Your task to perform on an android device: open app "ColorNote Notepad Notes" (install if not already installed) and go to login screen Image 0: 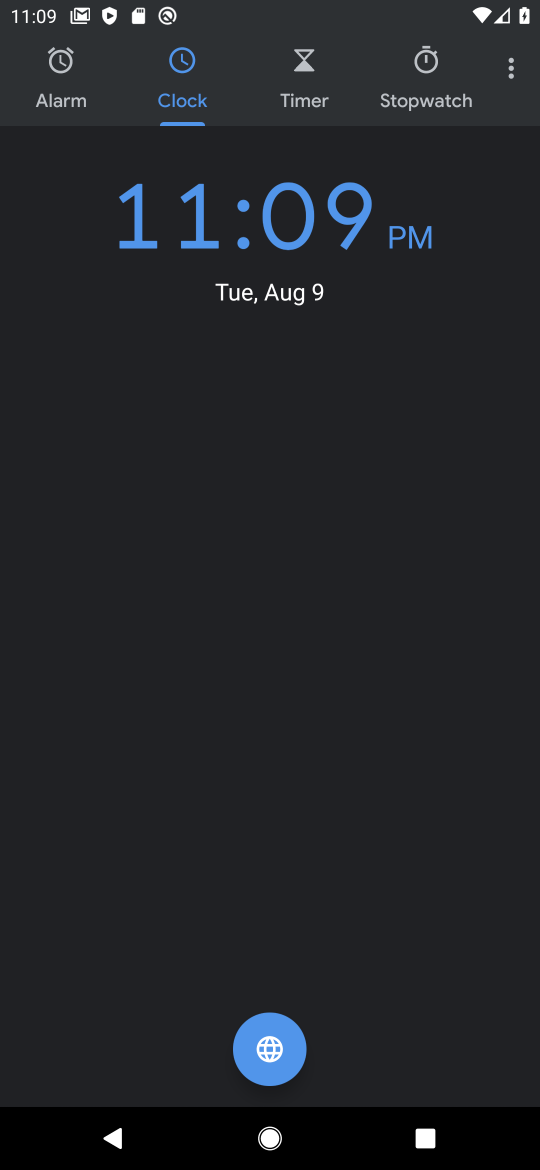
Step 0: press back button
Your task to perform on an android device: open app "ColorNote Notepad Notes" (install if not already installed) and go to login screen Image 1: 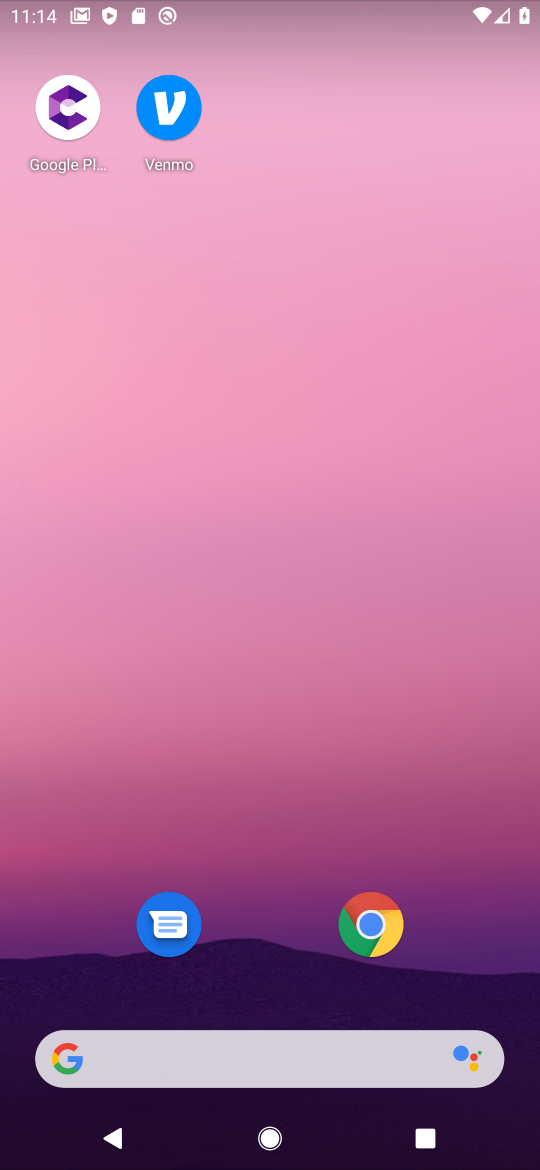
Step 1: drag from (291, 762) to (306, 76)
Your task to perform on an android device: open app "ColorNote Notepad Notes" (install if not already installed) and go to login screen Image 2: 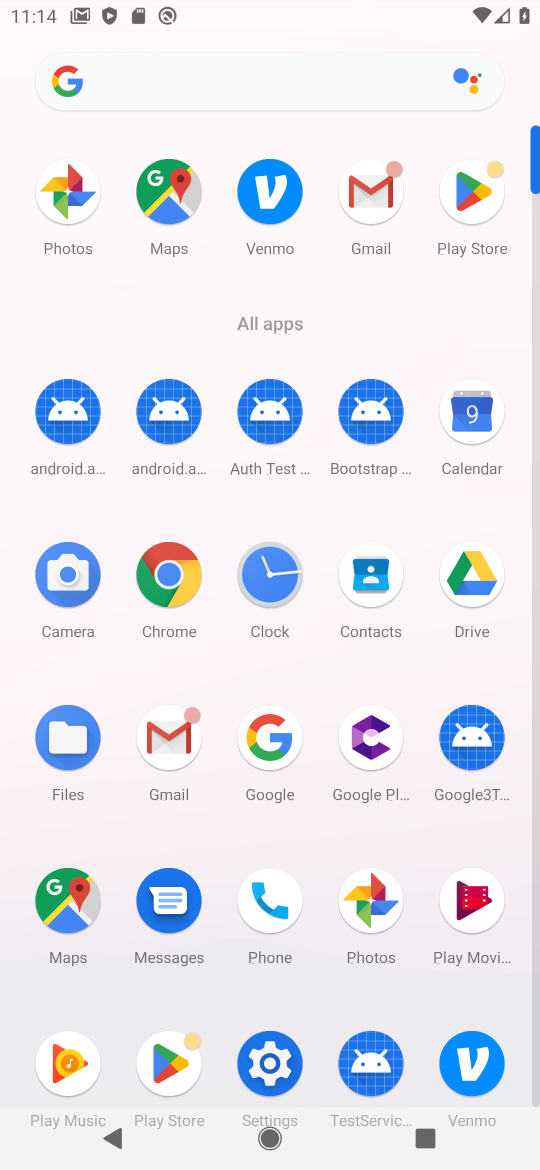
Step 2: click (482, 204)
Your task to perform on an android device: open app "ColorNote Notepad Notes" (install if not already installed) and go to login screen Image 3: 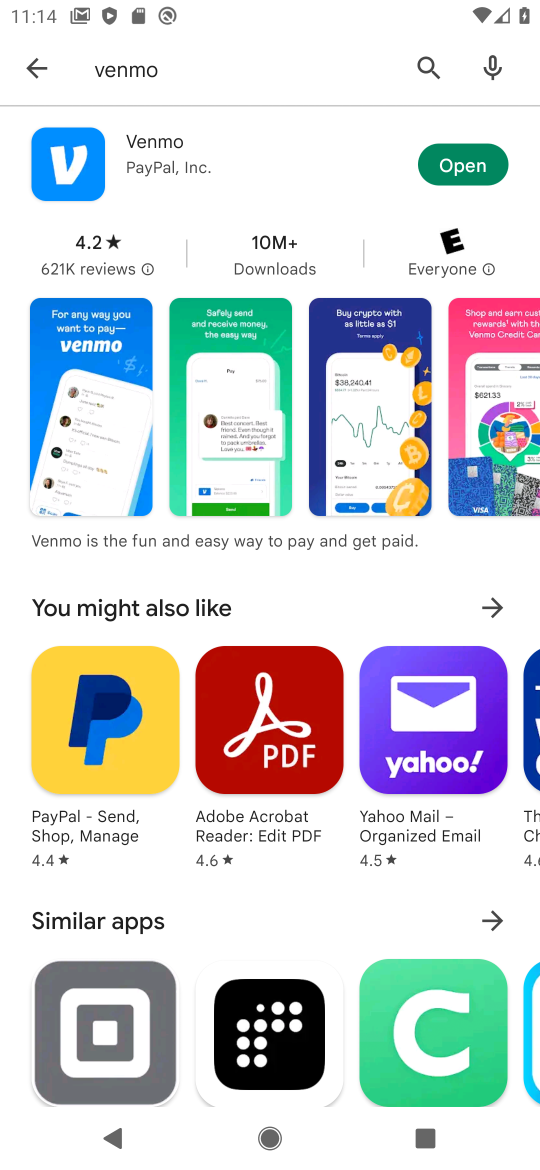
Step 3: click (405, 80)
Your task to perform on an android device: open app "ColorNote Notepad Notes" (install if not already installed) and go to login screen Image 4: 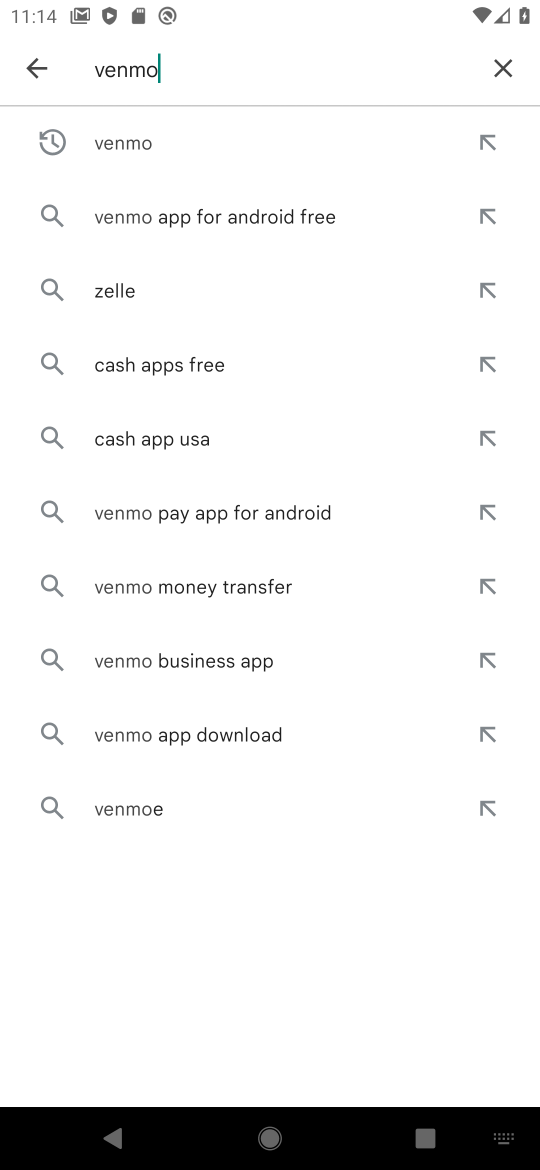
Step 4: click (513, 71)
Your task to perform on an android device: open app "ColorNote Notepad Notes" (install if not already installed) and go to login screen Image 5: 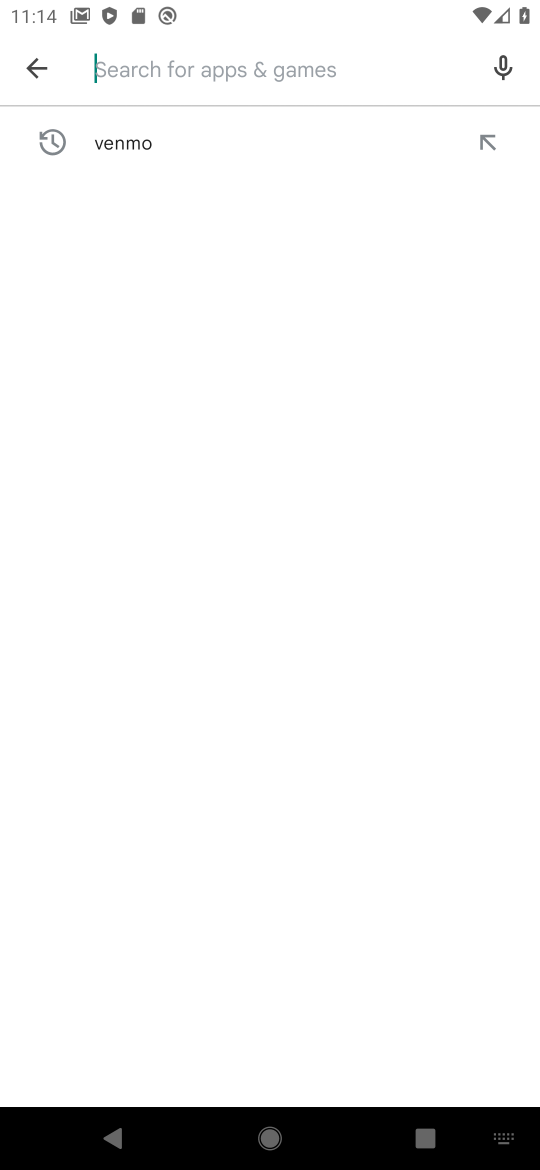
Step 5: click (199, 74)
Your task to perform on an android device: open app "ColorNote Notepad Notes" (install if not already installed) and go to login screen Image 6: 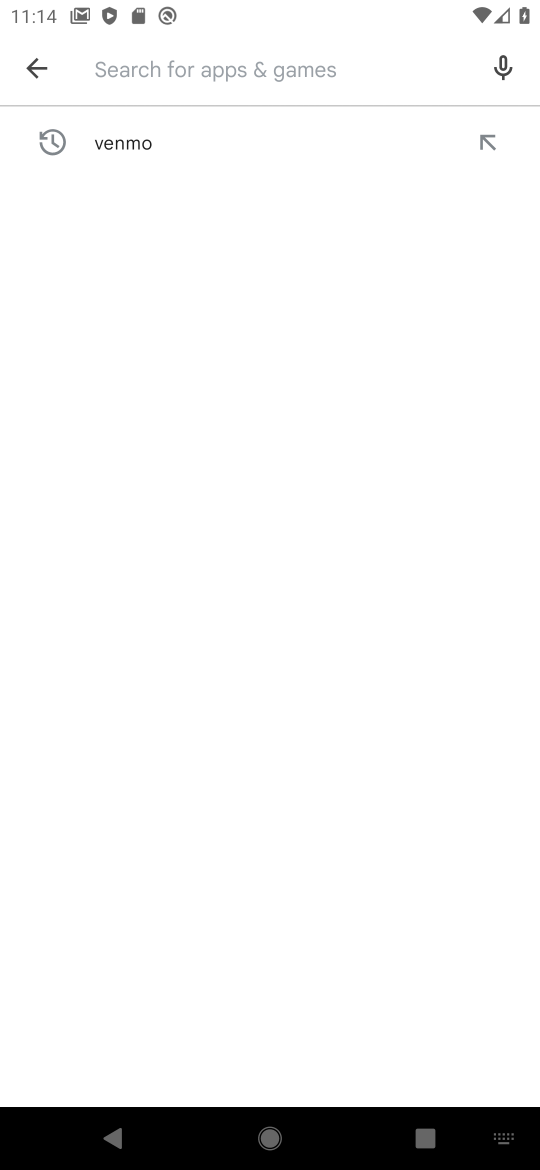
Step 6: type "colornote"
Your task to perform on an android device: open app "ColorNote Notepad Notes" (install if not already installed) and go to login screen Image 7: 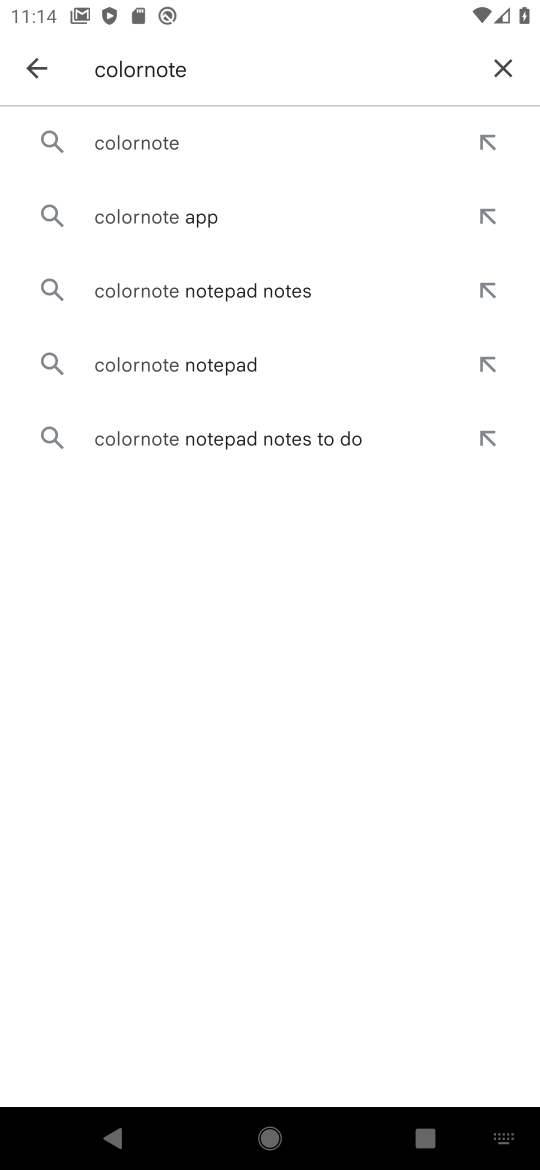
Step 7: click (199, 142)
Your task to perform on an android device: open app "ColorNote Notepad Notes" (install if not already installed) and go to login screen Image 8: 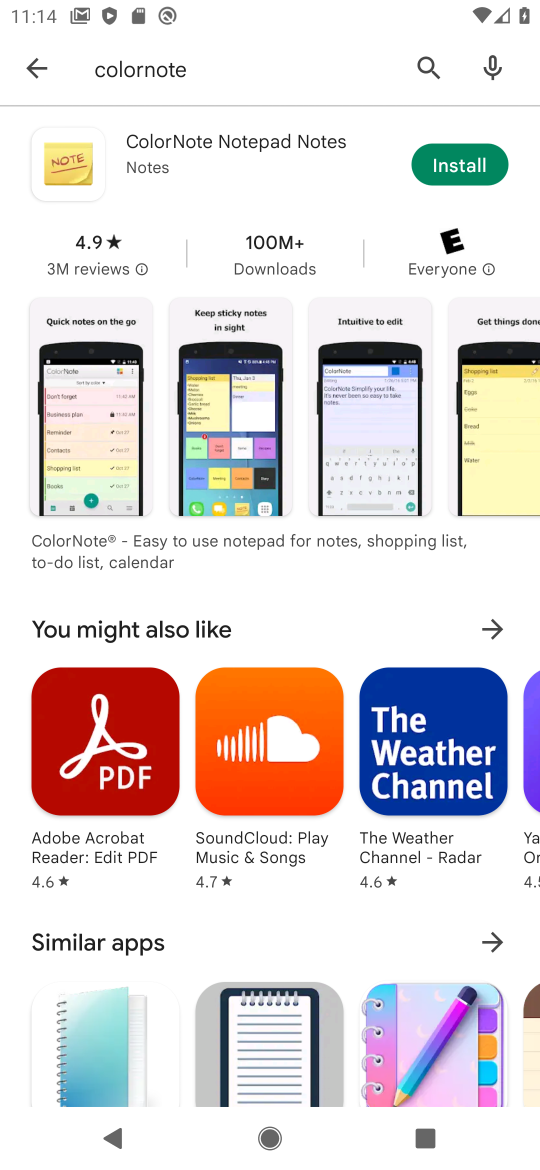
Step 8: click (466, 166)
Your task to perform on an android device: open app "ColorNote Notepad Notes" (install if not already installed) and go to login screen Image 9: 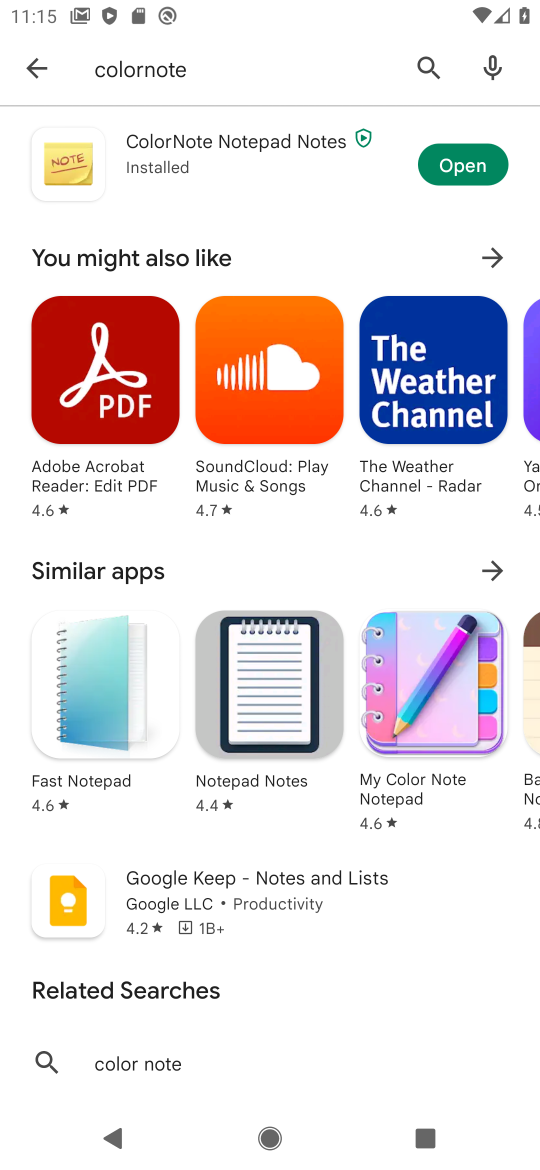
Step 9: click (451, 143)
Your task to perform on an android device: open app "ColorNote Notepad Notes" (install if not already installed) and go to login screen Image 10: 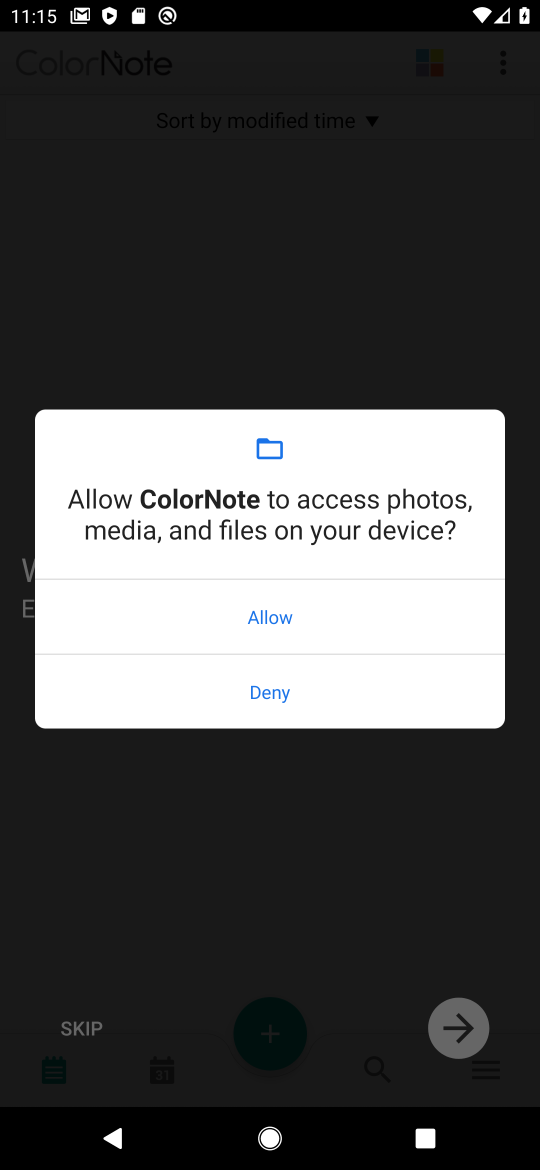
Step 10: click (296, 619)
Your task to perform on an android device: open app "ColorNote Notepad Notes" (install if not already installed) and go to login screen Image 11: 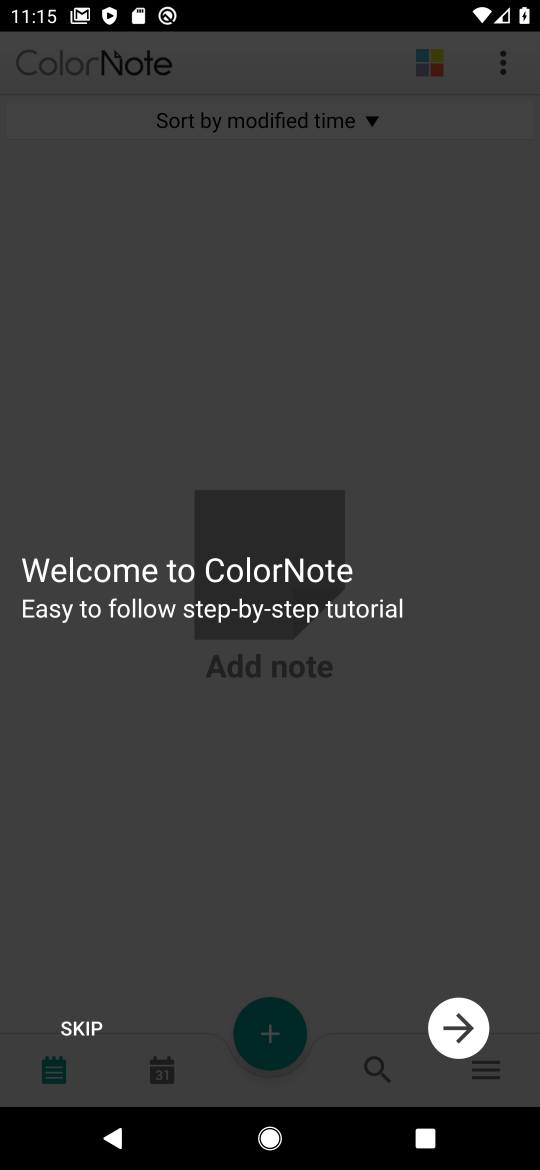
Step 11: task complete